Your task to perform on an android device: turn on translation in the chrome app Image 0: 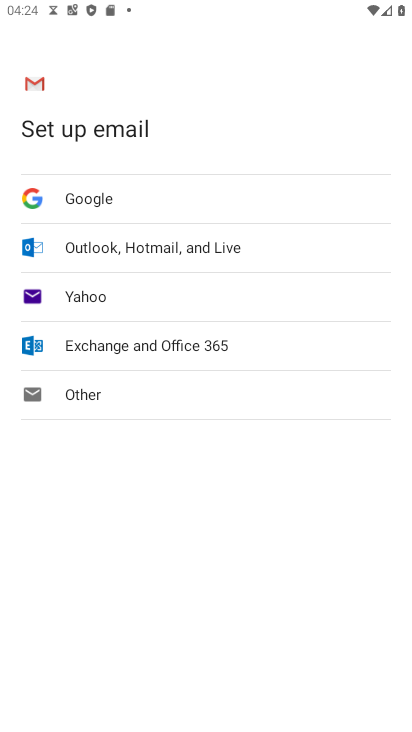
Step 0: press home button
Your task to perform on an android device: turn on translation in the chrome app Image 1: 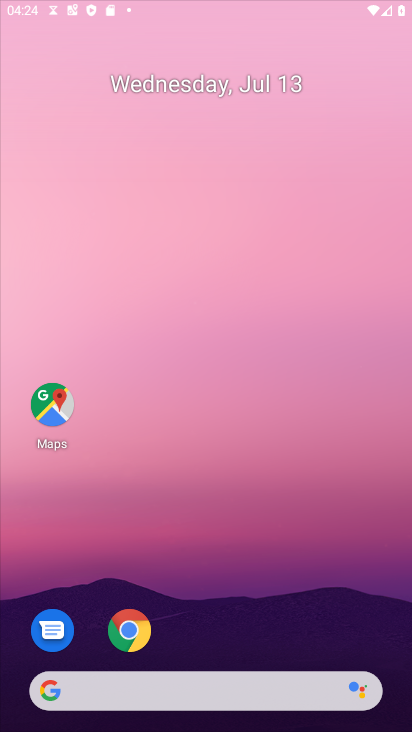
Step 1: drag from (319, 710) to (342, 87)
Your task to perform on an android device: turn on translation in the chrome app Image 2: 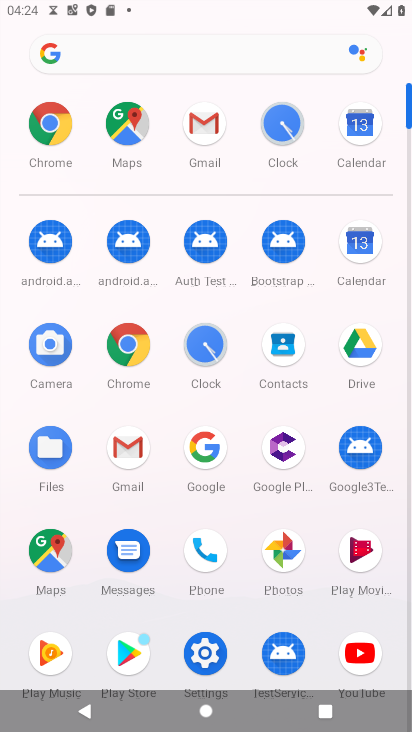
Step 2: click (123, 355)
Your task to perform on an android device: turn on translation in the chrome app Image 3: 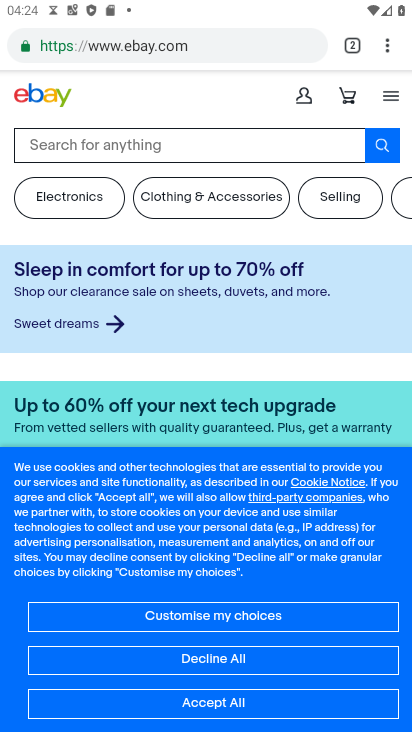
Step 3: drag from (394, 38) to (255, 546)
Your task to perform on an android device: turn on translation in the chrome app Image 4: 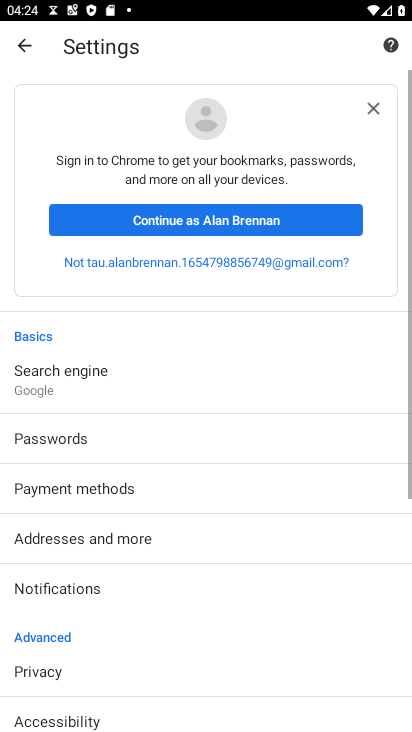
Step 4: drag from (164, 668) to (189, 264)
Your task to perform on an android device: turn on translation in the chrome app Image 5: 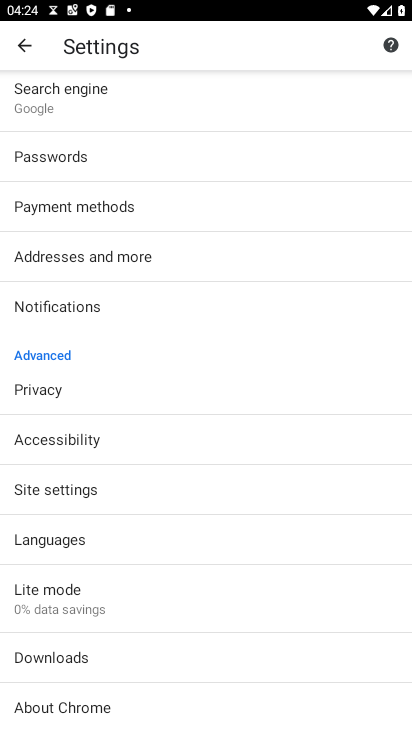
Step 5: click (112, 538)
Your task to perform on an android device: turn on translation in the chrome app Image 6: 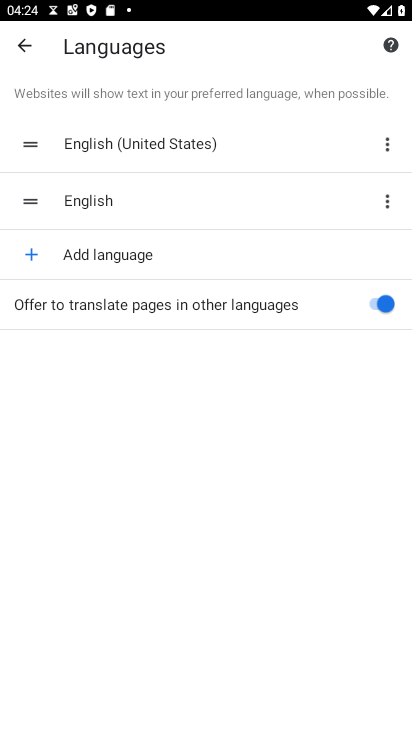
Step 6: task complete